Your task to perform on an android device: Open Google Chrome and open the bookmarks view Image 0: 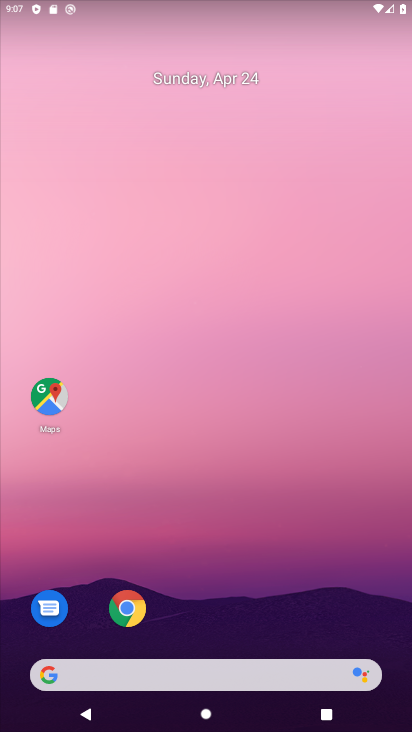
Step 0: drag from (340, 585) to (287, 25)
Your task to perform on an android device: Open Google Chrome and open the bookmarks view Image 1: 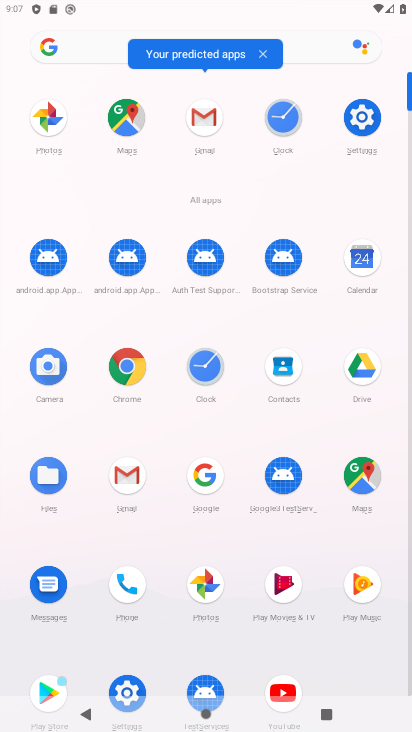
Step 1: click (122, 375)
Your task to perform on an android device: Open Google Chrome and open the bookmarks view Image 2: 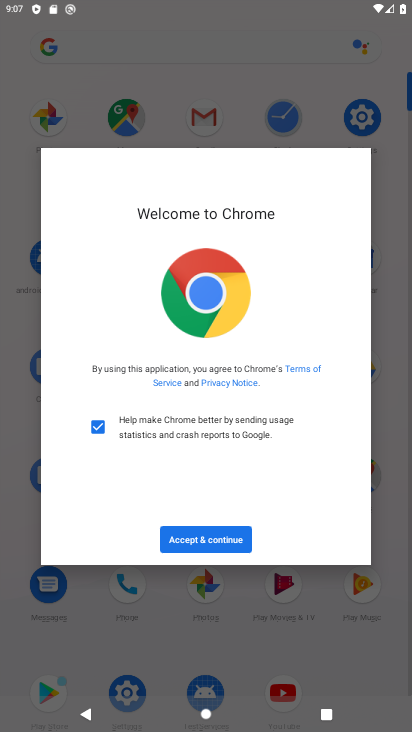
Step 2: click (233, 540)
Your task to perform on an android device: Open Google Chrome and open the bookmarks view Image 3: 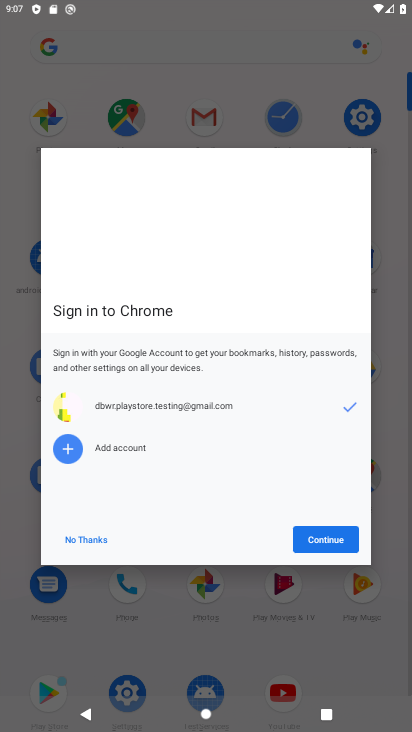
Step 3: click (314, 540)
Your task to perform on an android device: Open Google Chrome and open the bookmarks view Image 4: 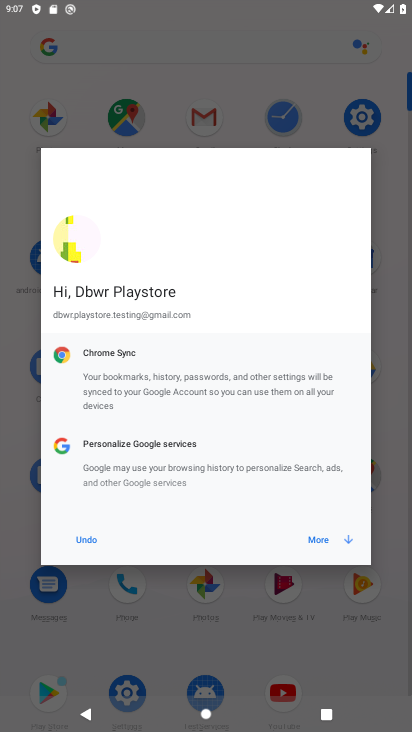
Step 4: click (314, 540)
Your task to perform on an android device: Open Google Chrome and open the bookmarks view Image 5: 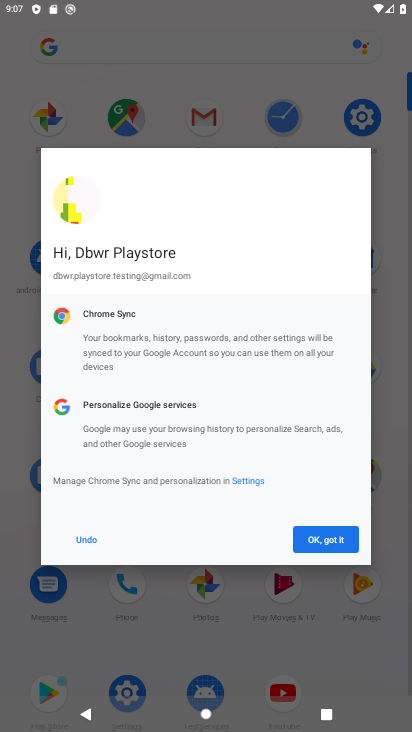
Step 5: click (315, 541)
Your task to perform on an android device: Open Google Chrome and open the bookmarks view Image 6: 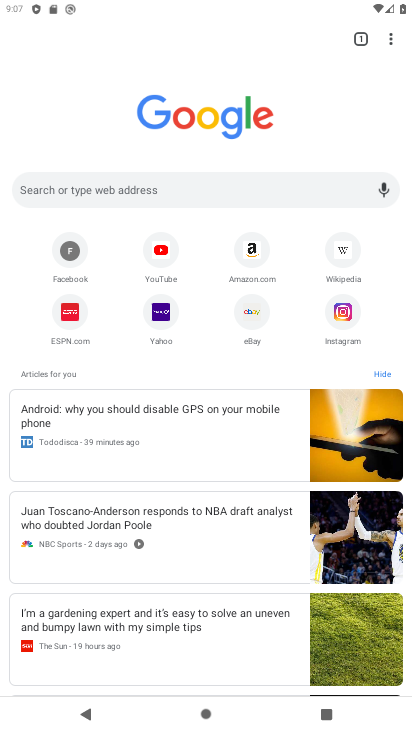
Step 6: click (388, 46)
Your task to perform on an android device: Open Google Chrome and open the bookmarks view Image 7: 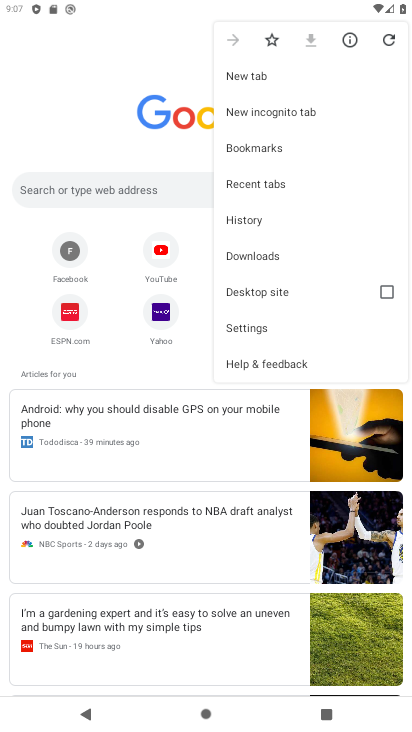
Step 7: click (277, 144)
Your task to perform on an android device: Open Google Chrome and open the bookmarks view Image 8: 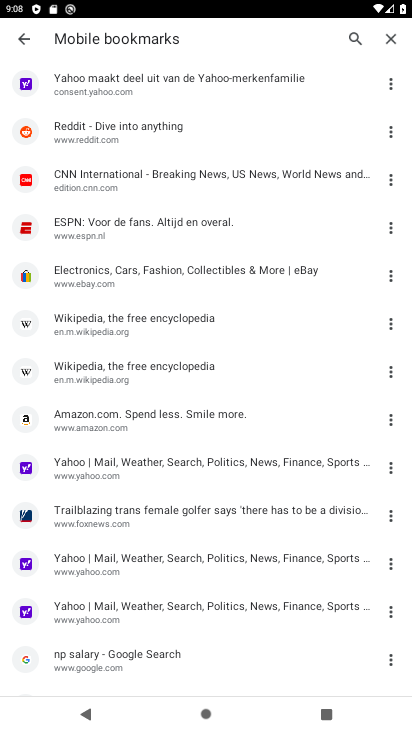
Step 8: task complete